Your task to perform on an android device: Search for logitech g903 on bestbuy.com, select the first entry, and add it to the cart. Image 0: 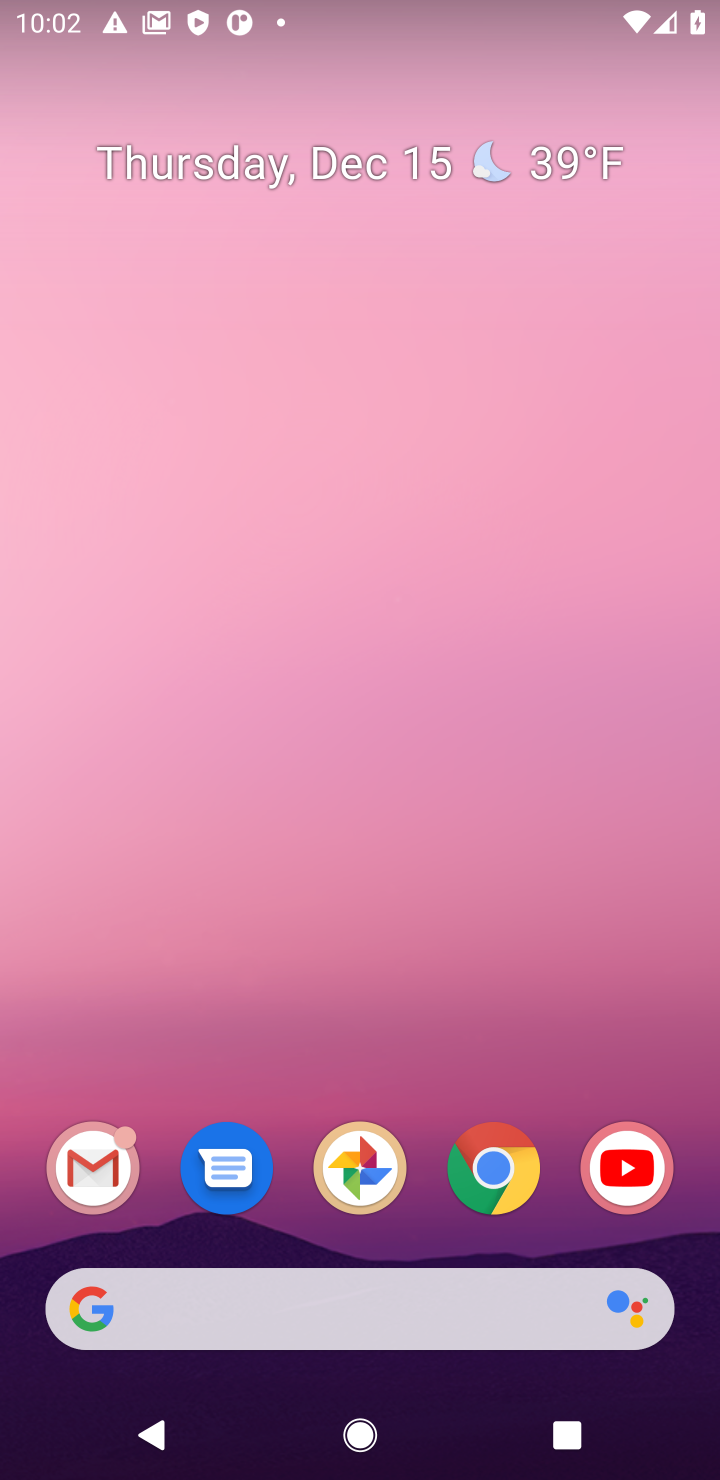
Step 0: click (496, 1196)
Your task to perform on an android device: Search for logitech g903 on bestbuy.com, select the first entry, and add it to the cart. Image 1: 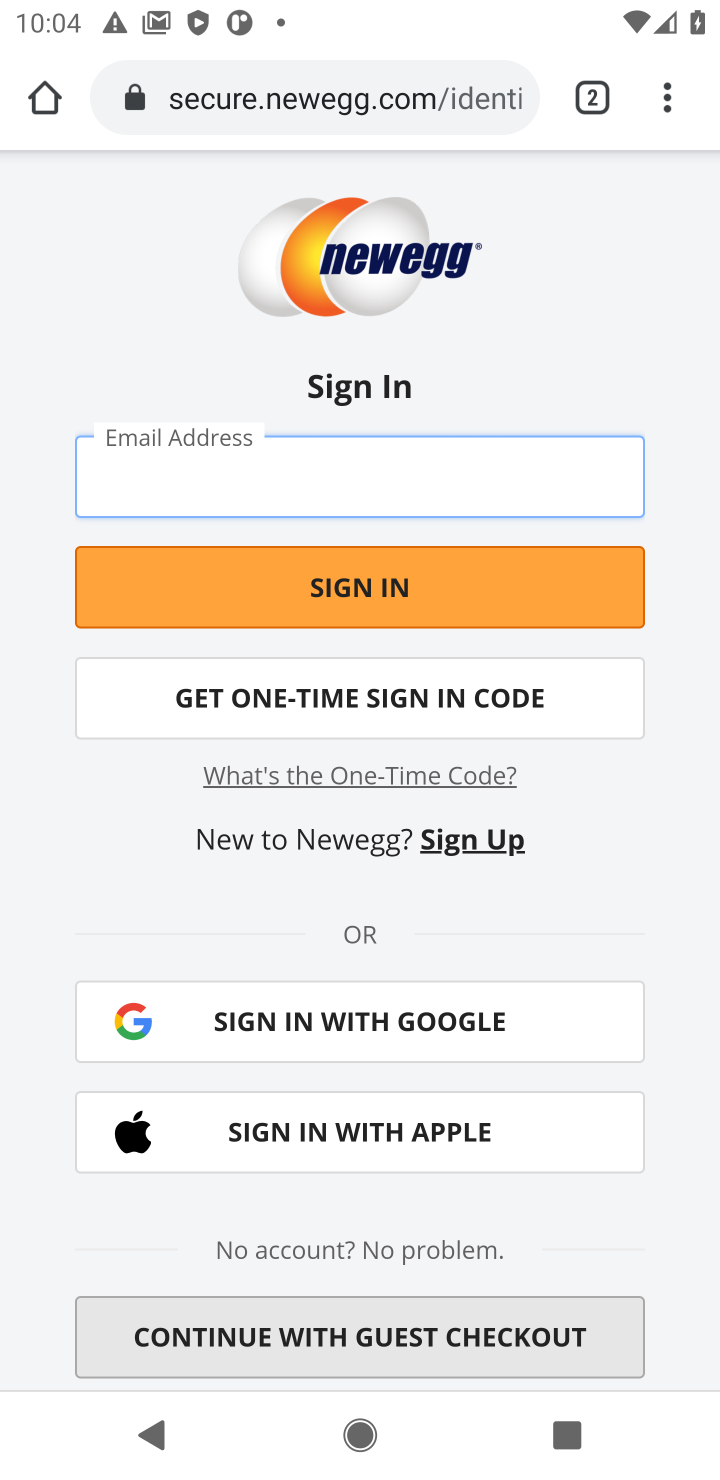
Step 1: click (325, 99)
Your task to perform on an android device: Search for logitech g903 on bestbuy.com, select the first entry, and add it to the cart. Image 2: 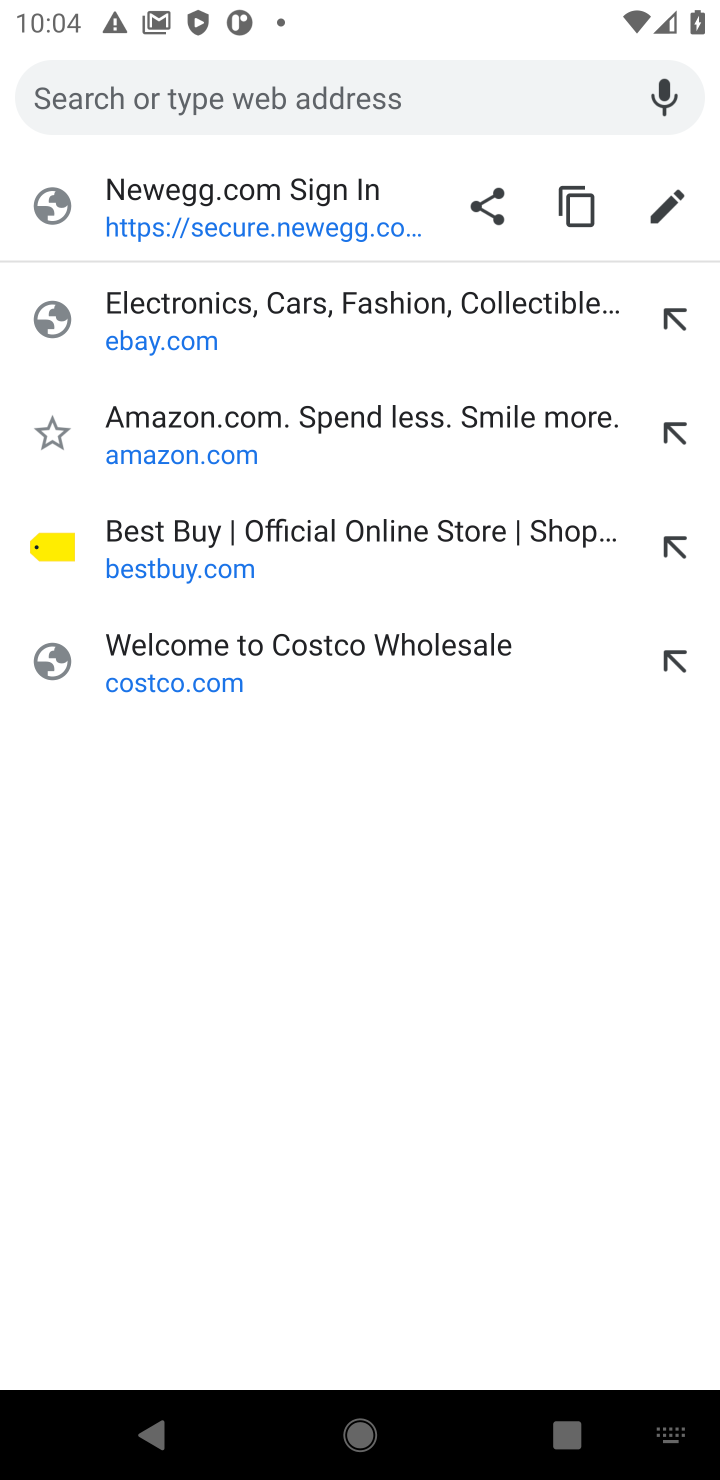
Step 2: type "bes"
Your task to perform on an android device: Search for logitech g903 on bestbuy.com, select the first entry, and add it to the cart. Image 3: 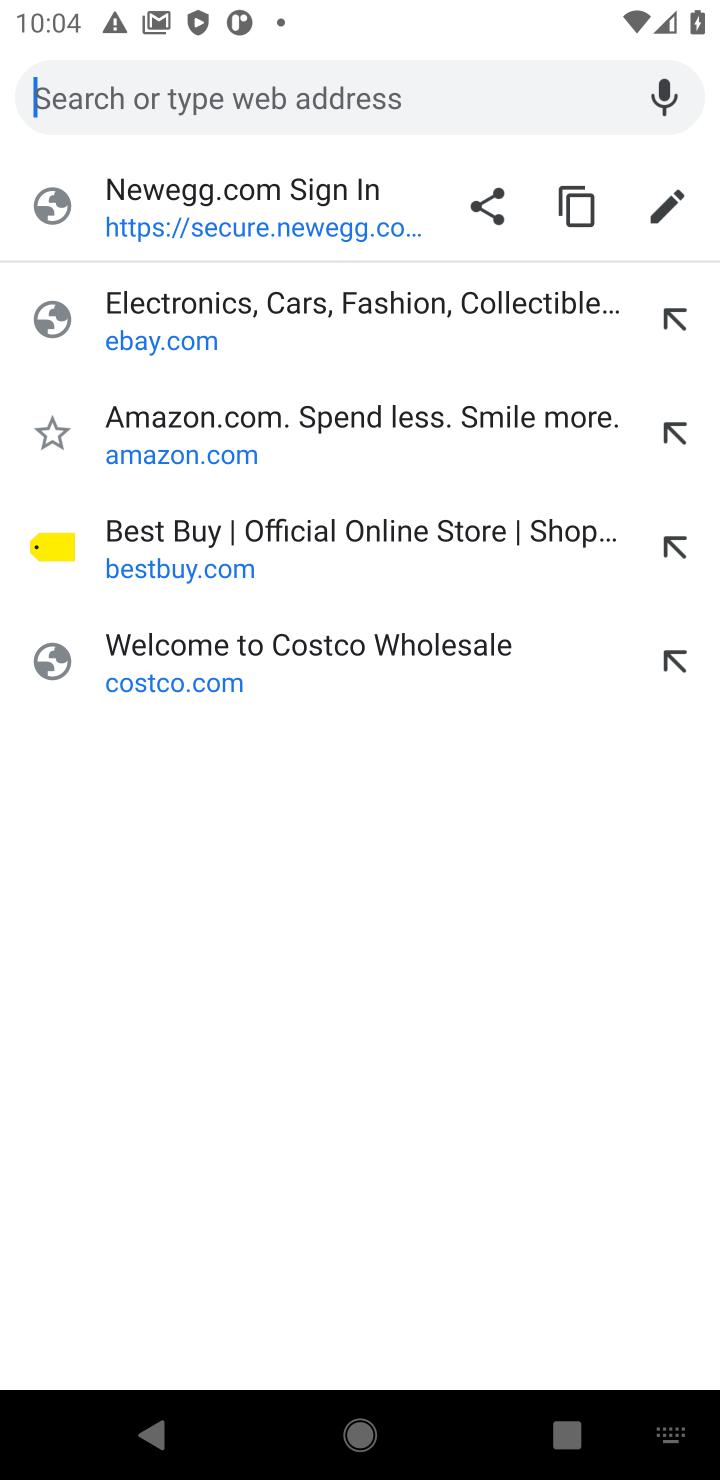
Step 3: click (409, 559)
Your task to perform on an android device: Search for logitech g903 on bestbuy.com, select the first entry, and add it to the cart. Image 4: 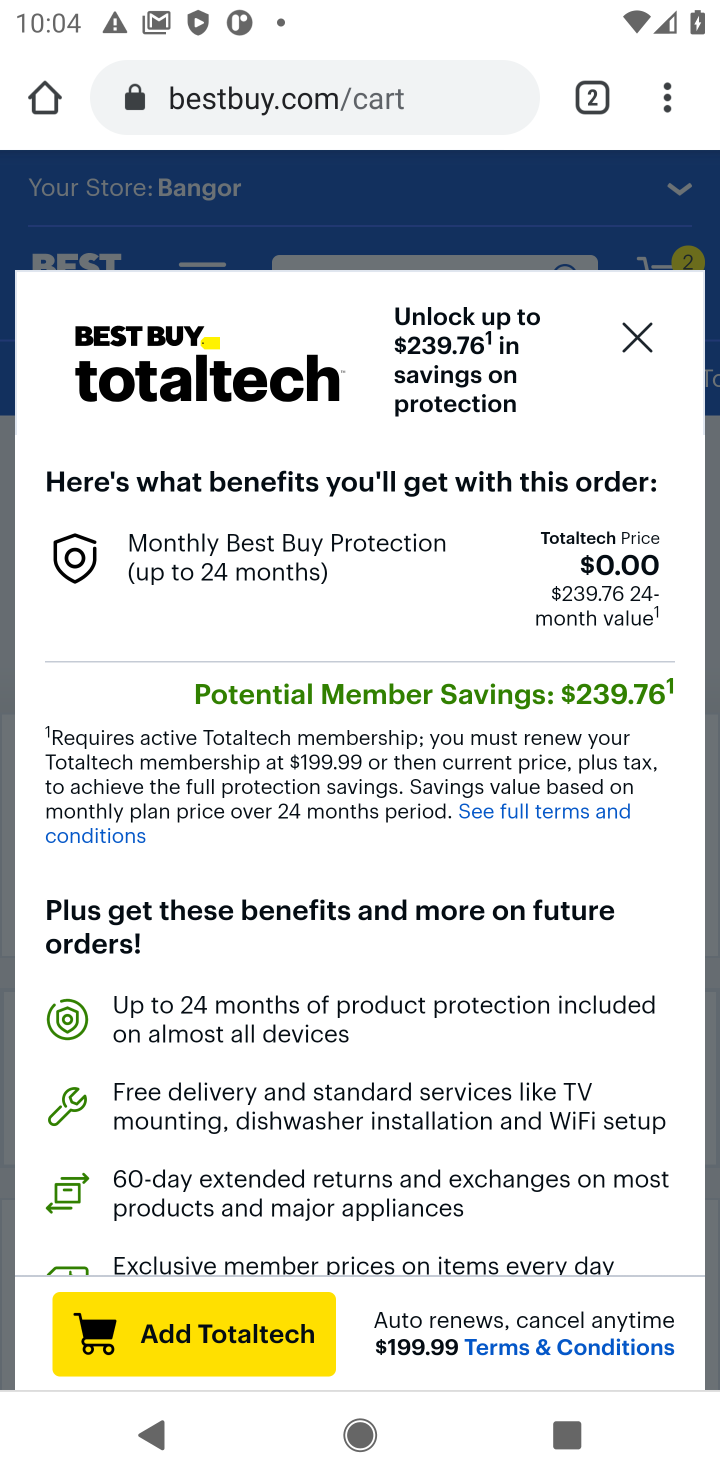
Step 4: click (642, 338)
Your task to perform on an android device: Search for logitech g903 on bestbuy.com, select the first entry, and add it to the cart. Image 5: 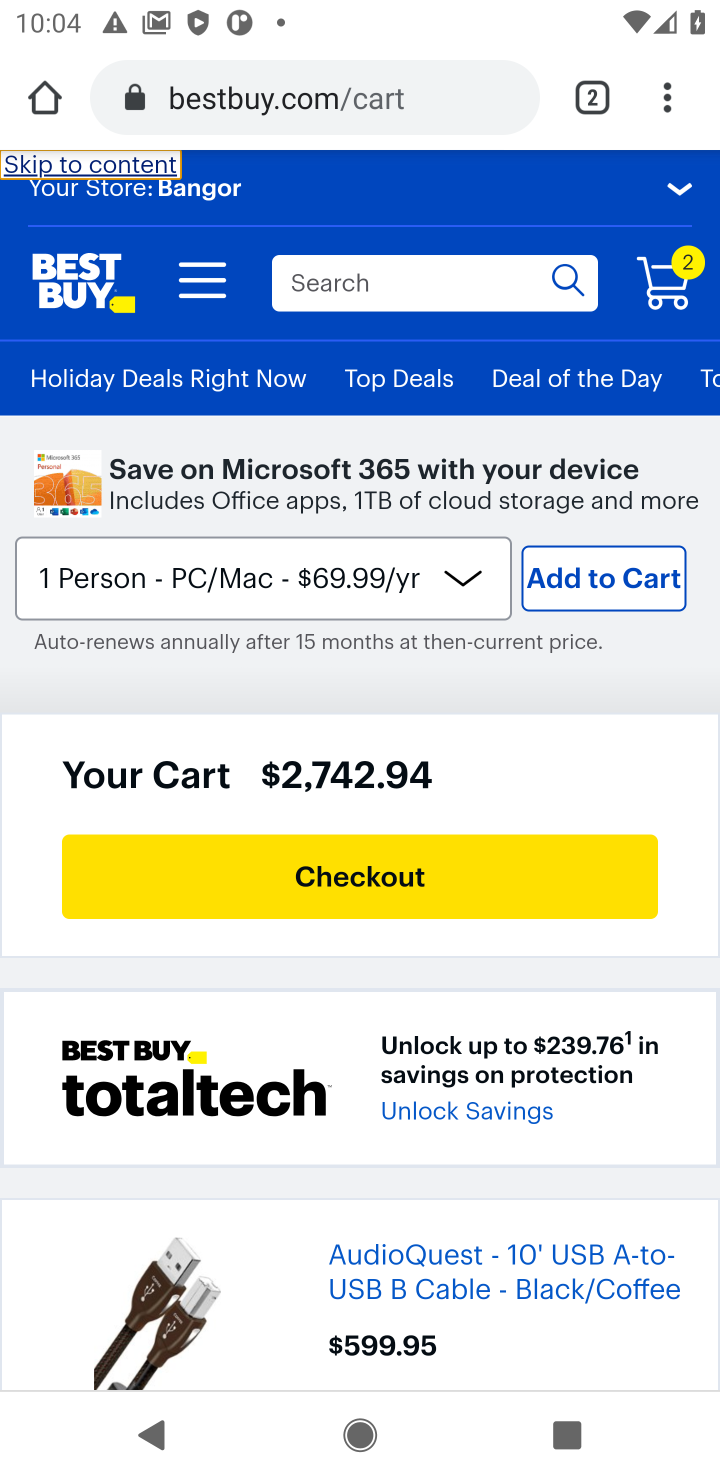
Step 5: click (471, 281)
Your task to perform on an android device: Search for logitech g903 on bestbuy.com, select the first entry, and add it to the cart. Image 6: 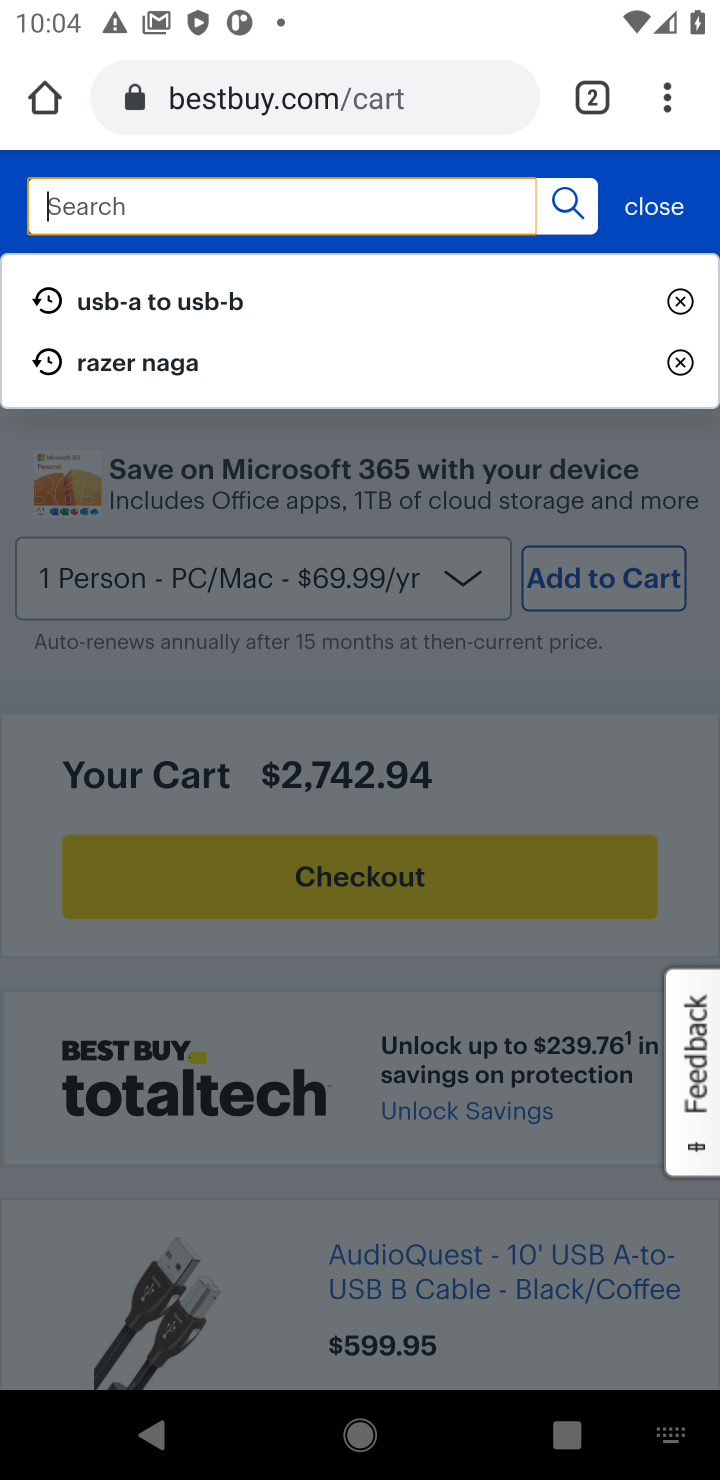
Step 6: type "logitech g903"
Your task to perform on an android device: Search for logitech g903 on bestbuy.com, select the first entry, and add it to the cart. Image 7: 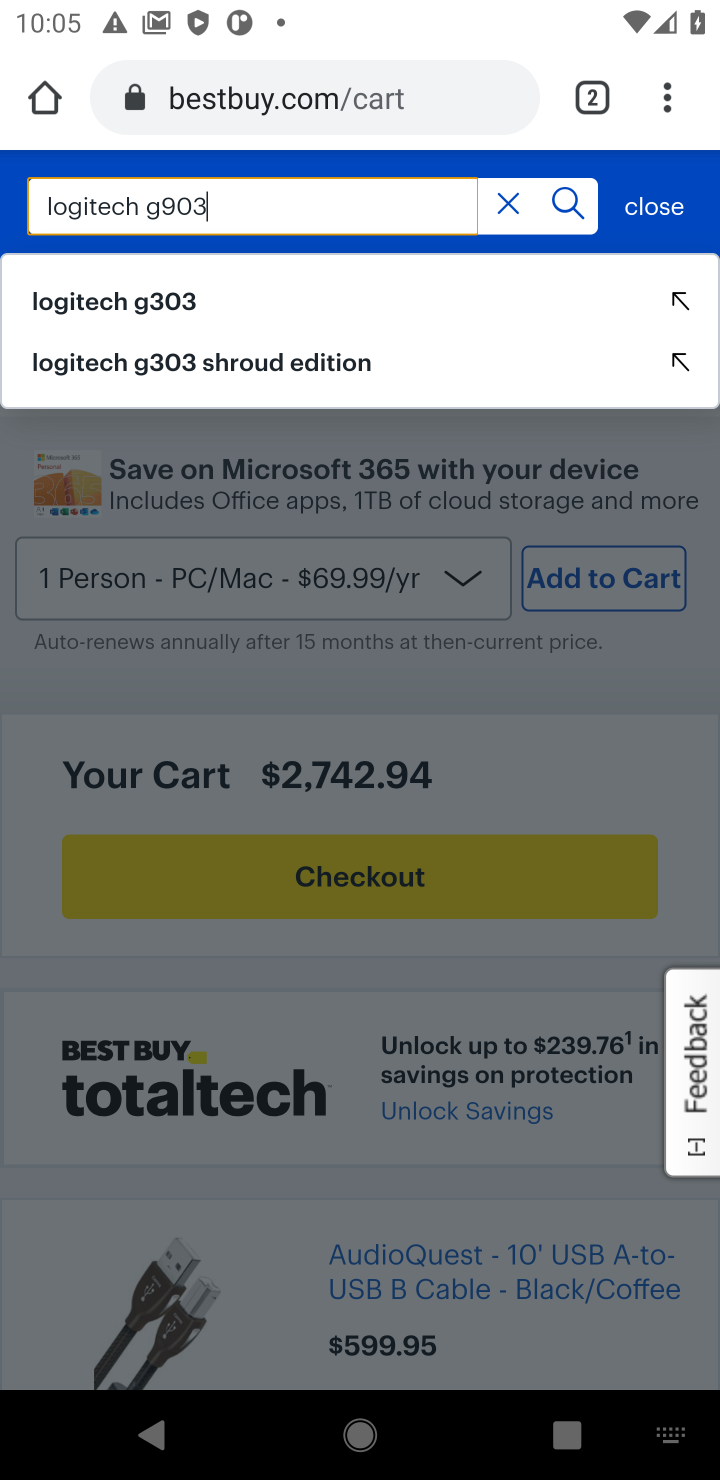
Step 7: click (137, 293)
Your task to perform on an android device: Search for logitech g903 on bestbuy.com, select the first entry, and add it to the cart. Image 8: 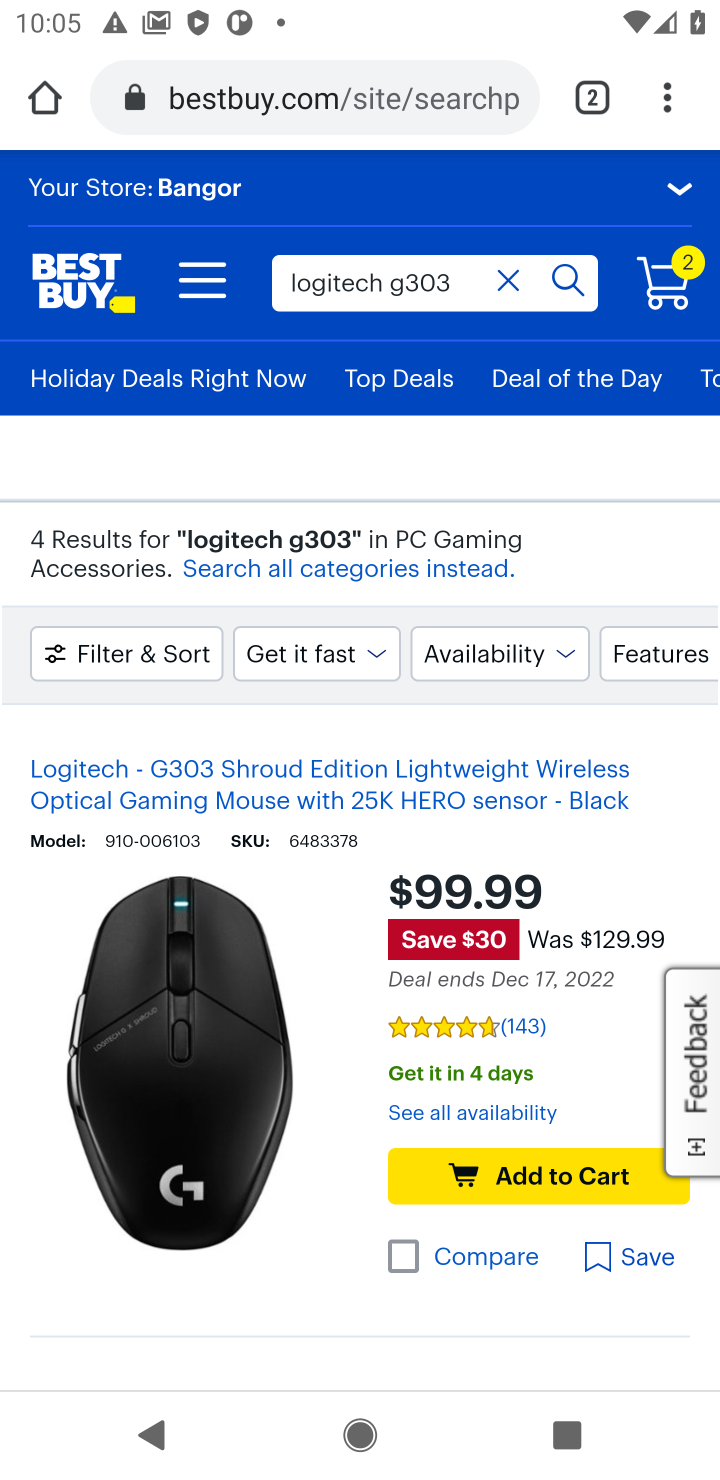
Step 8: click (537, 1179)
Your task to perform on an android device: Search for logitech g903 on bestbuy.com, select the first entry, and add it to the cart. Image 9: 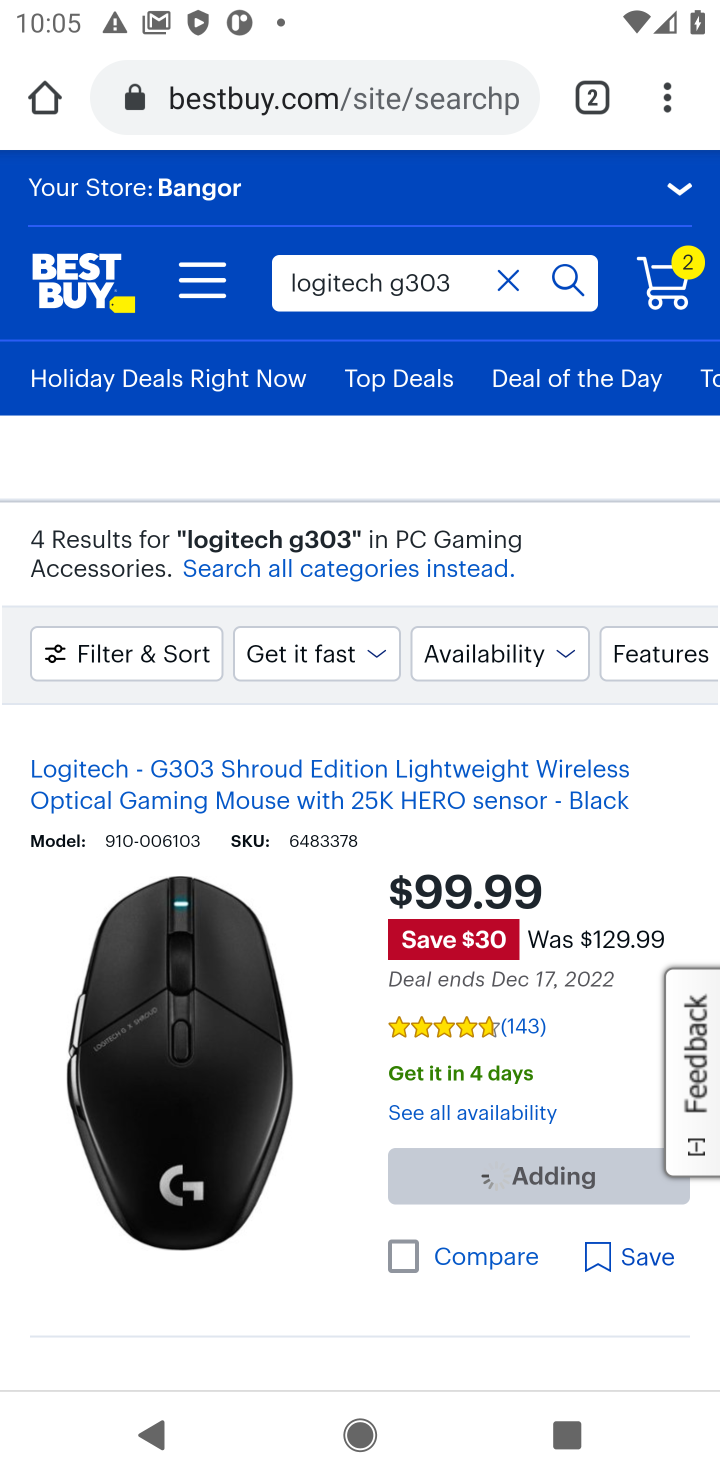
Step 9: task complete